Your task to perform on an android device: Open Google Chrome and open the bookmarks view Image 0: 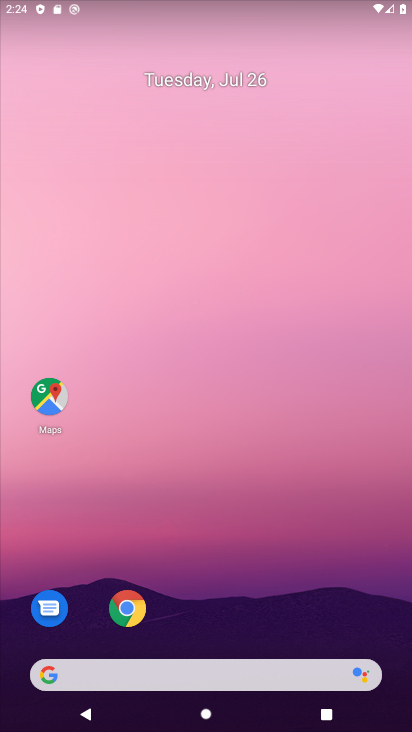
Step 0: click (132, 616)
Your task to perform on an android device: Open Google Chrome and open the bookmarks view Image 1: 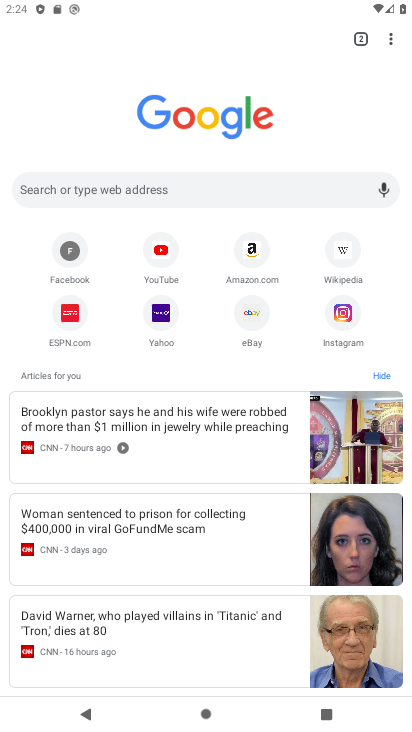
Step 1: click (387, 40)
Your task to perform on an android device: Open Google Chrome and open the bookmarks view Image 2: 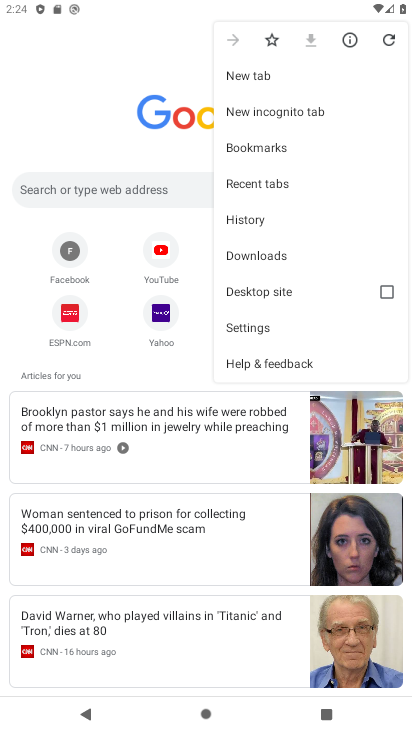
Step 2: click (270, 152)
Your task to perform on an android device: Open Google Chrome and open the bookmarks view Image 3: 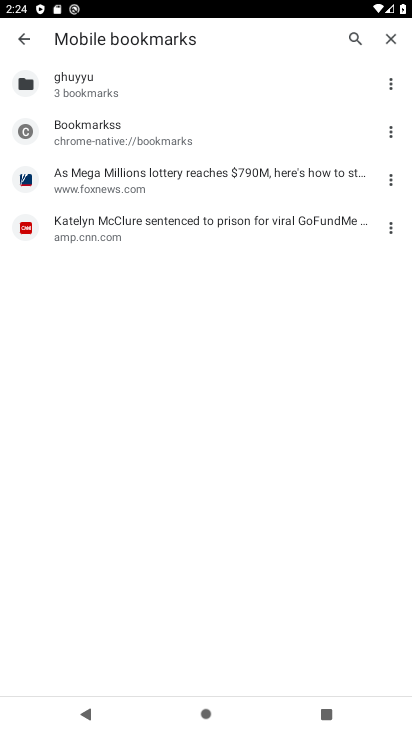
Step 3: task complete